Your task to perform on an android device: open app "Paramount+ | Peak Streaming" Image 0: 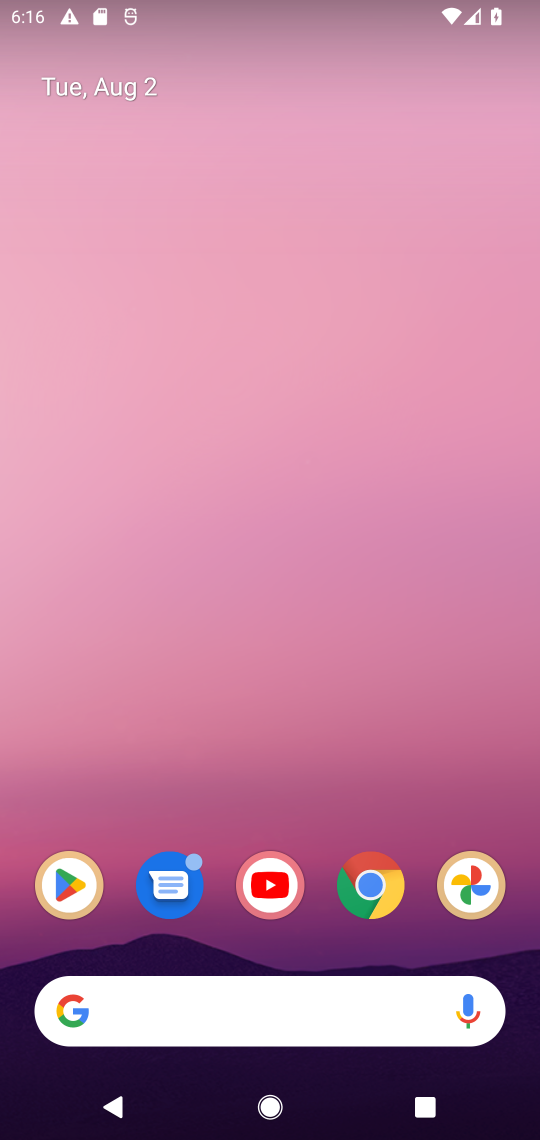
Step 0: press home button
Your task to perform on an android device: open app "Paramount+ | Peak Streaming" Image 1: 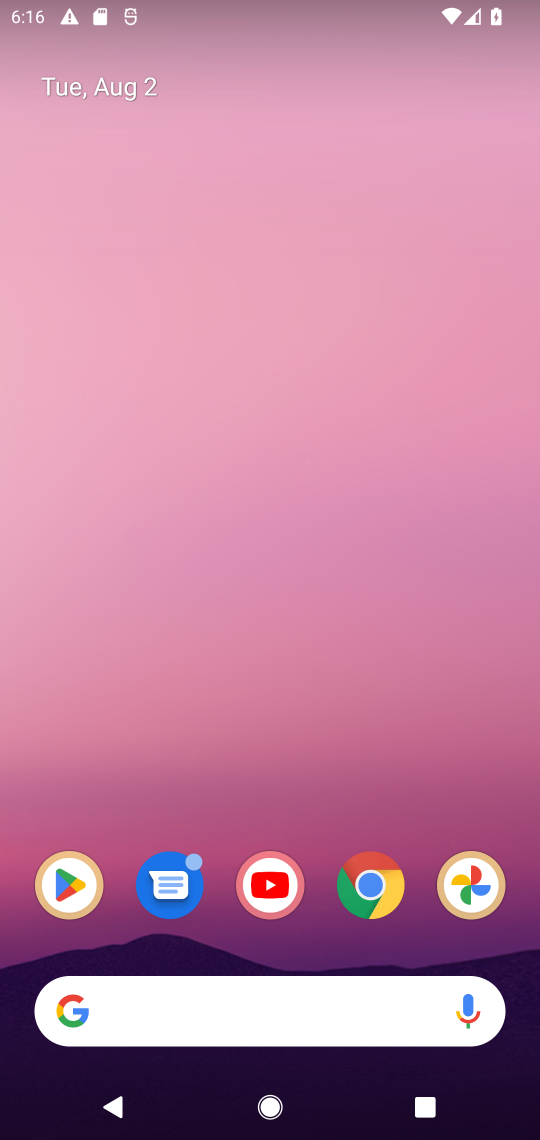
Step 1: drag from (388, 663) to (356, 71)
Your task to perform on an android device: open app "Paramount+ | Peak Streaming" Image 2: 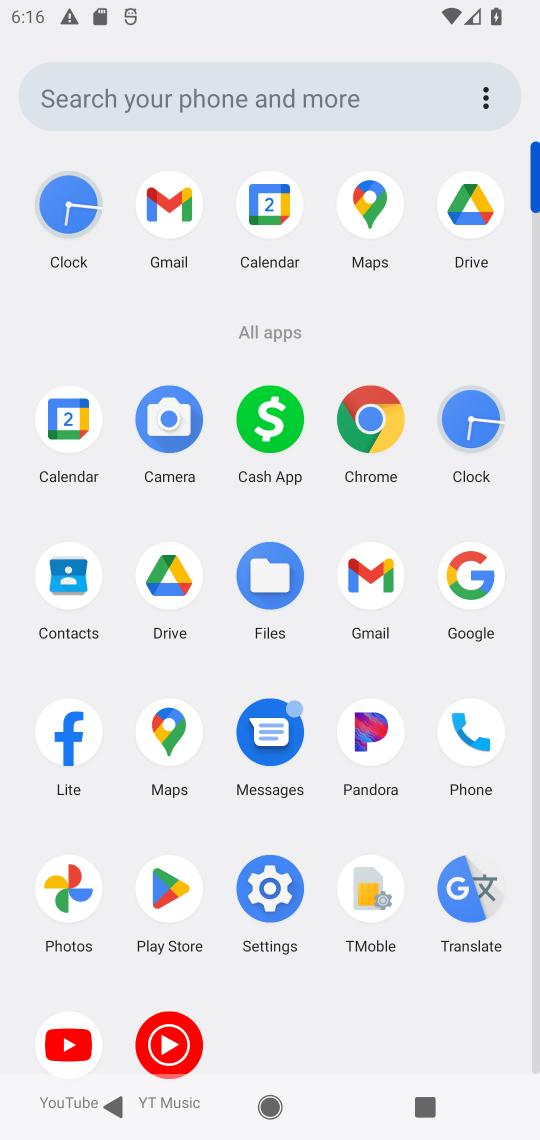
Step 2: click (163, 902)
Your task to perform on an android device: open app "Paramount+ | Peak Streaming" Image 3: 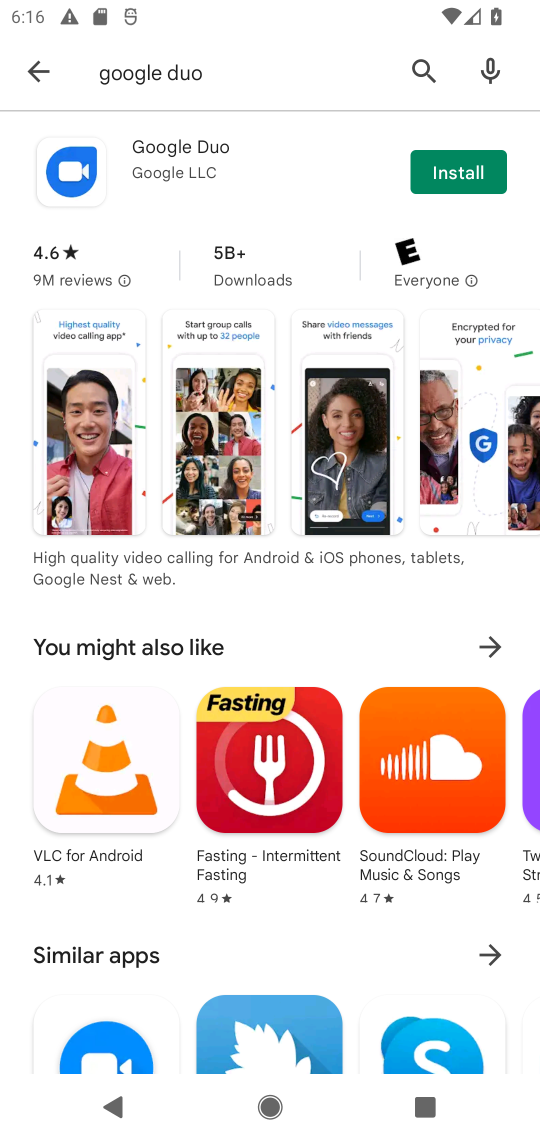
Step 3: click (415, 59)
Your task to perform on an android device: open app "Paramount+ | Peak Streaming" Image 4: 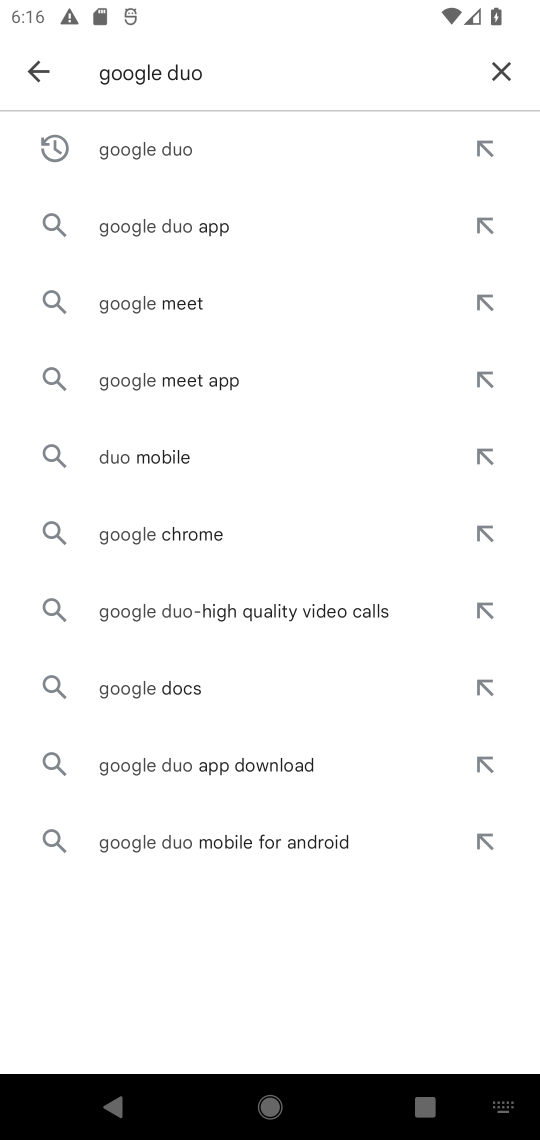
Step 4: click (499, 60)
Your task to perform on an android device: open app "Paramount+ | Peak Streaming" Image 5: 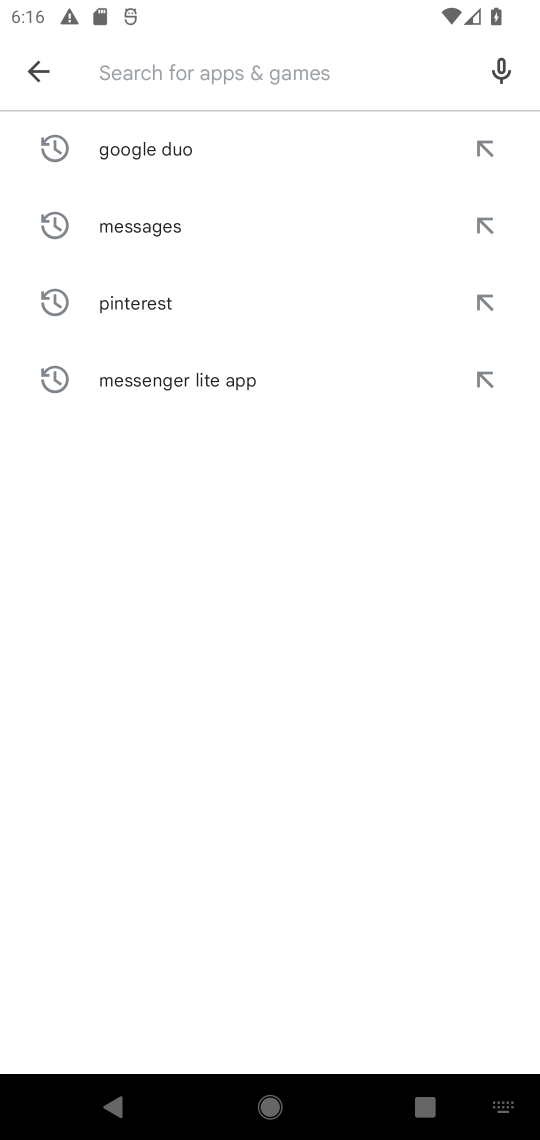
Step 5: type "Paramount+ | Peak Streaming"
Your task to perform on an android device: open app "Paramount+ | Peak Streaming" Image 6: 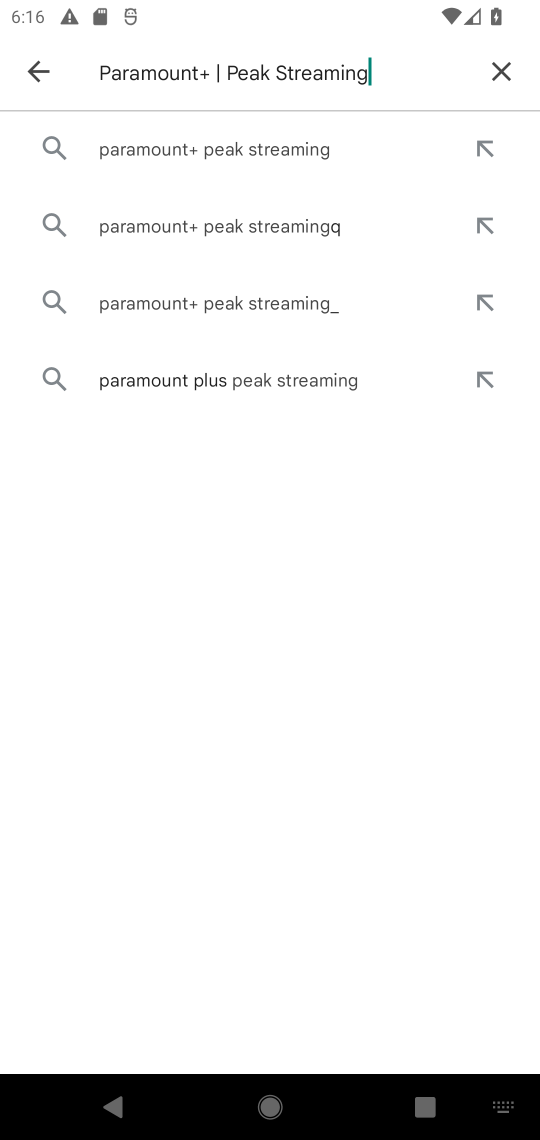
Step 6: click (279, 153)
Your task to perform on an android device: open app "Paramount+ | Peak Streaming" Image 7: 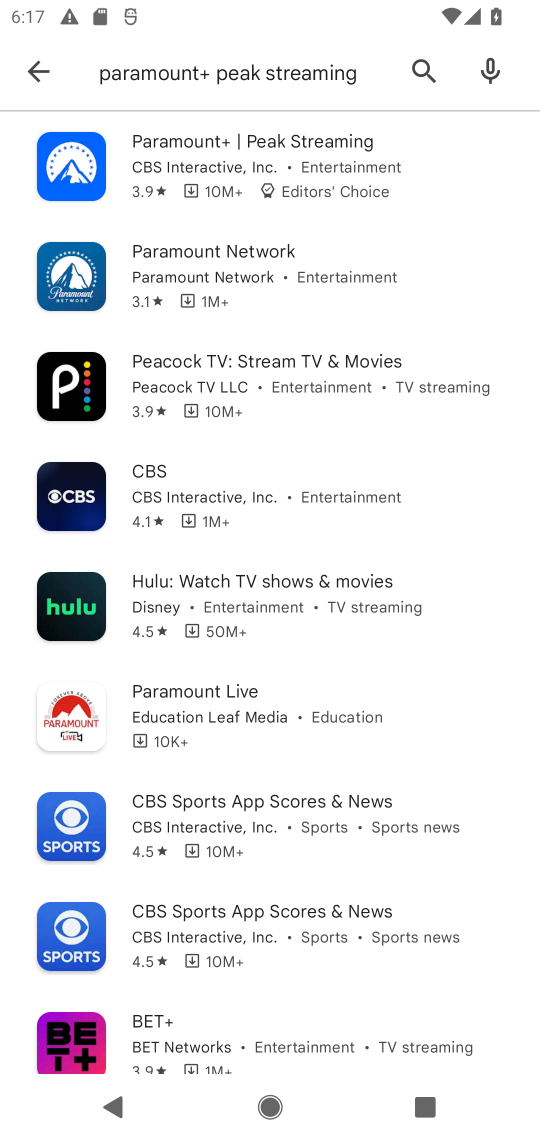
Step 7: task complete